Your task to perform on an android device: open chrome and create a bookmark for the current page Image 0: 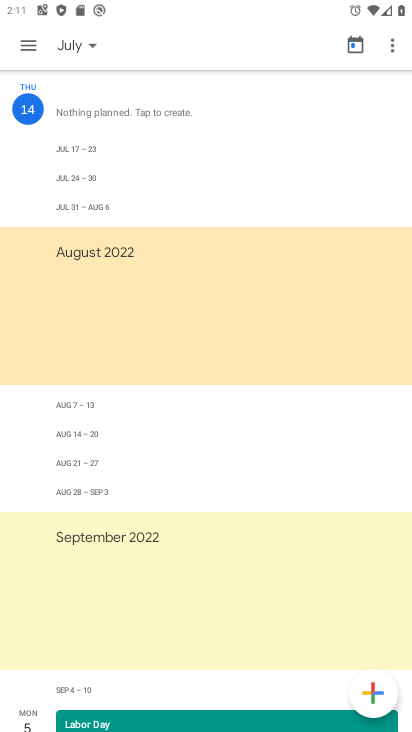
Step 0: press home button
Your task to perform on an android device: open chrome and create a bookmark for the current page Image 1: 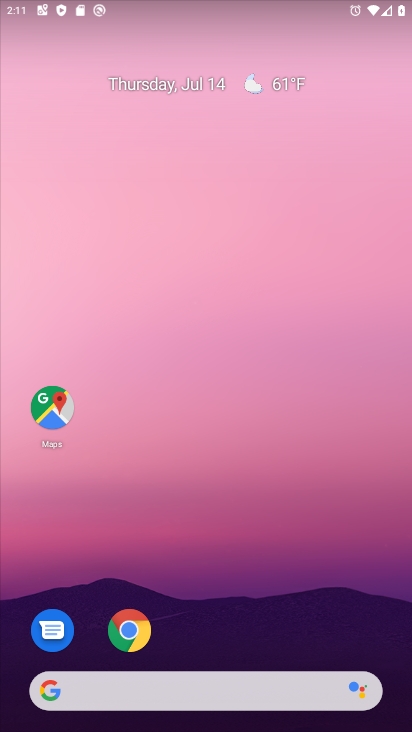
Step 1: click (129, 638)
Your task to perform on an android device: open chrome and create a bookmark for the current page Image 2: 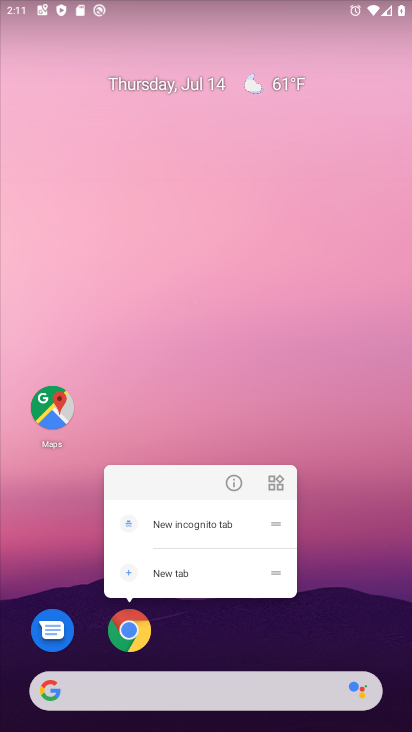
Step 2: click (124, 625)
Your task to perform on an android device: open chrome and create a bookmark for the current page Image 3: 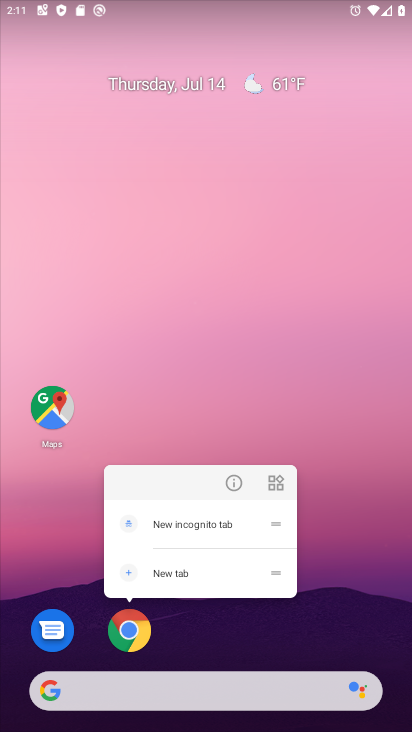
Step 3: click (124, 625)
Your task to perform on an android device: open chrome and create a bookmark for the current page Image 4: 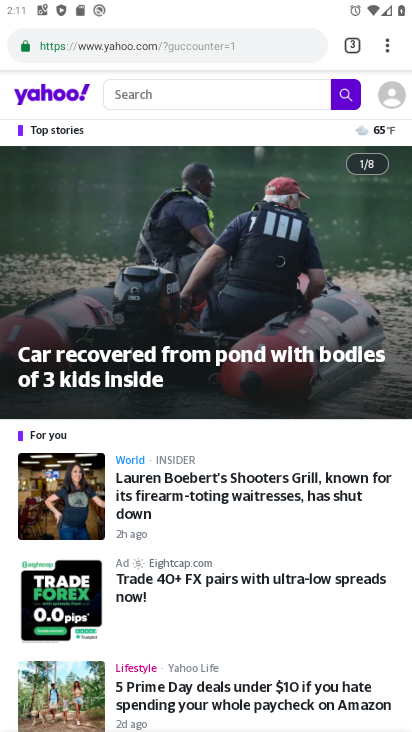
Step 4: click (387, 57)
Your task to perform on an android device: open chrome and create a bookmark for the current page Image 5: 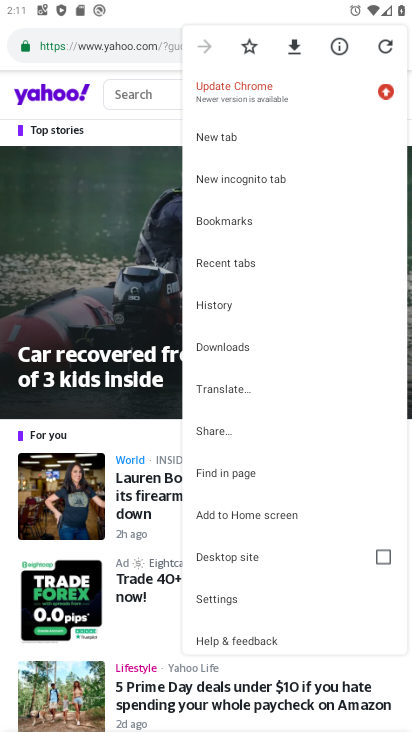
Step 5: click (250, 44)
Your task to perform on an android device: open chrome and create a bookmark for the current page Image 6: 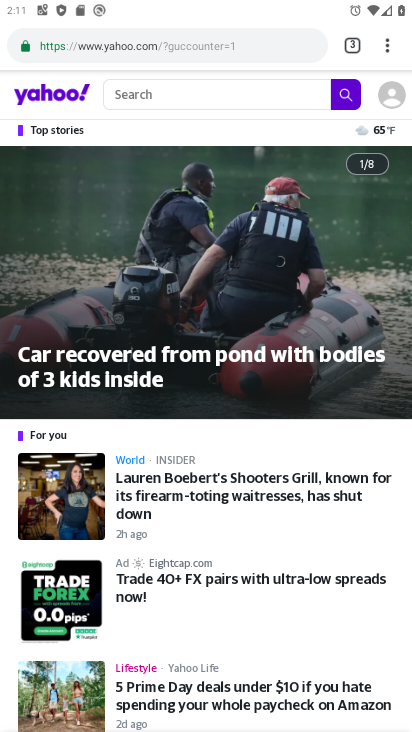
Step 6: task complete